Your task to perform on an android device: What's the weather today? Image 0: 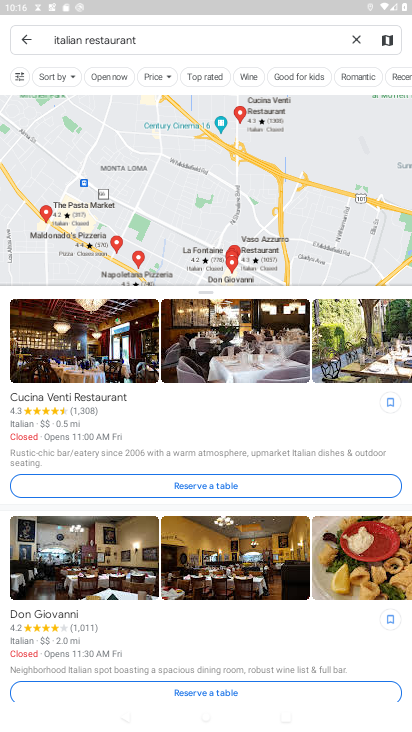
Step 0: press home button
Your task to perform on an android device: What's the weather today? Image 1: 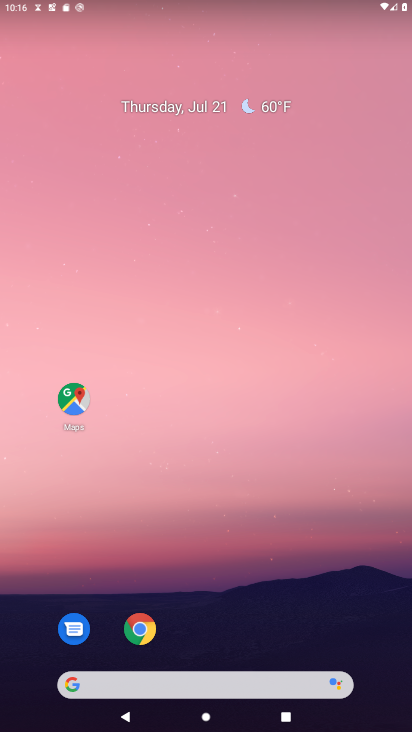
Step 1: drag from (181, 643) to (205, 249)
Your task to perform on an android device: What's the weather today? Image 2: 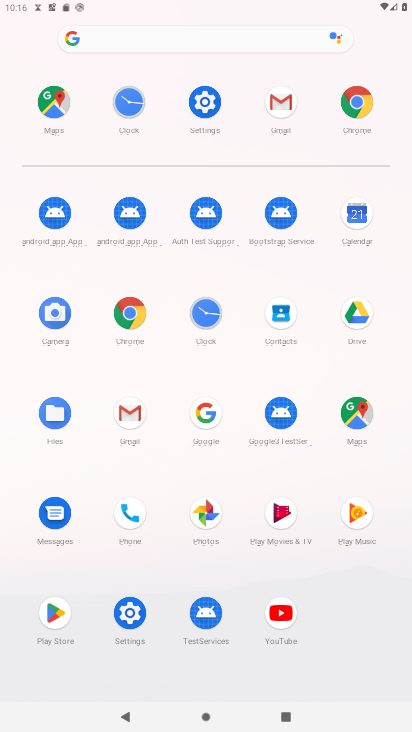
Step 2: click (358, 100)
Your task to perform on an android device: What's the weather today? Image 3: 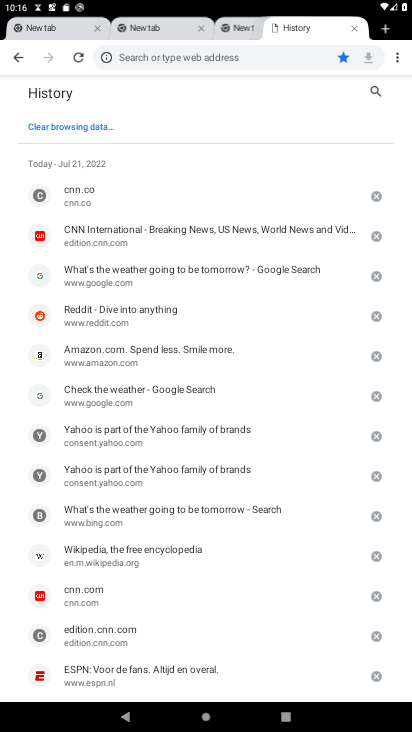
Step 3: click (382, 28)
Your task to perform on an android device: What's the weather today? Image 4: 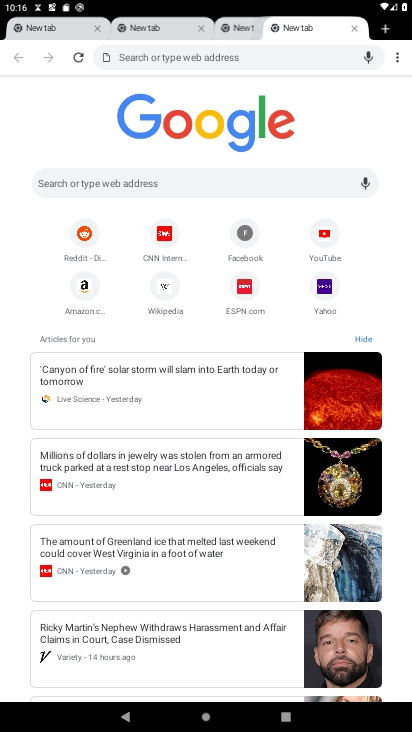
Step 4: click (227, 162)
Your task to perform on an android device: What's the weather today? Image 5: 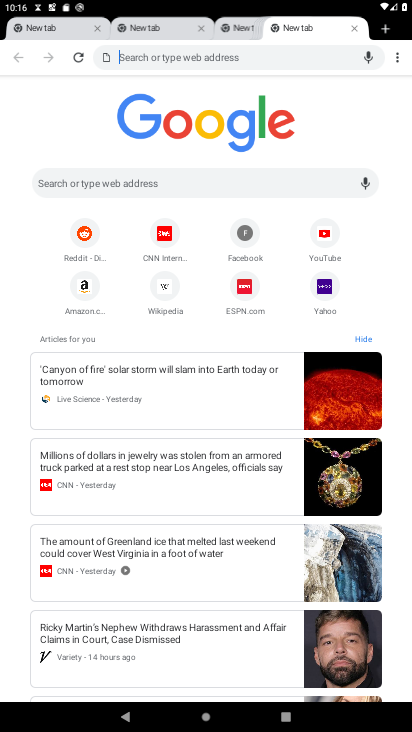
Step 5: click (238, 182)
Your task to perform on an android device: What's the weather today? Image 6: 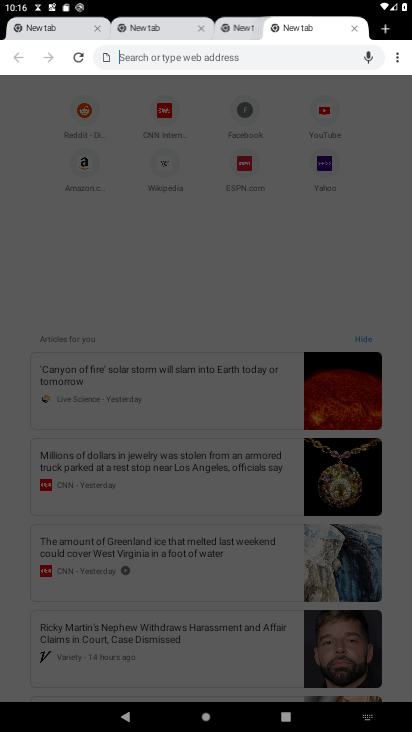
Step 6: type "What's the weather today "
Your task to perform on an android device: What's the weather today? Image 7: 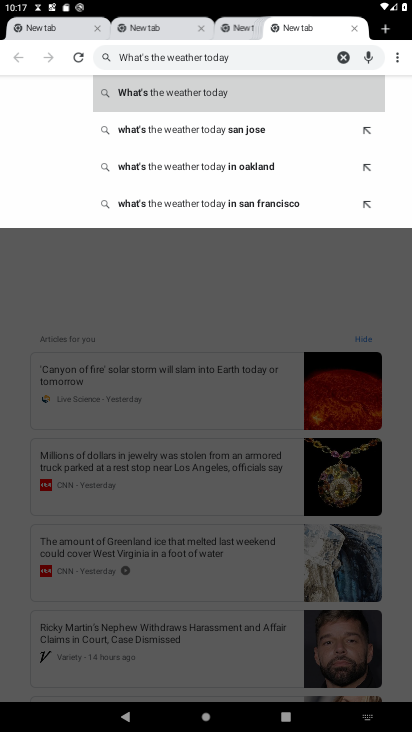
Step 7: click (177, 78)
Your task to perform on an android device: What's the weather today? Image 8: 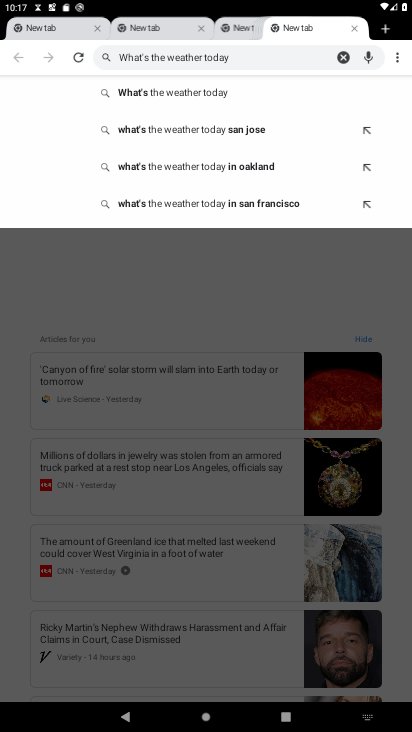
Step 8: click (190, 91)
Your task to perform on an android device: What's the weather today? Image 9: 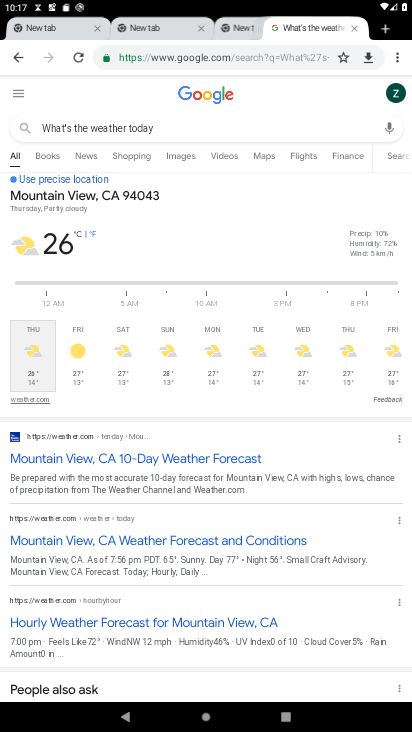
Step 9: task complete